Your task to perform on an android device: open chrome and create a bookmark for the current page Image 0: 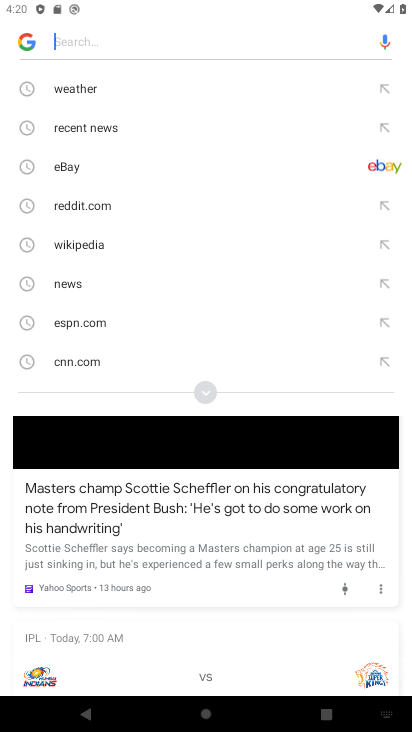
Step 0: click (89, 714)
Your task to perform on an android device: open chrome and create a bookmark for the current page Image 1: 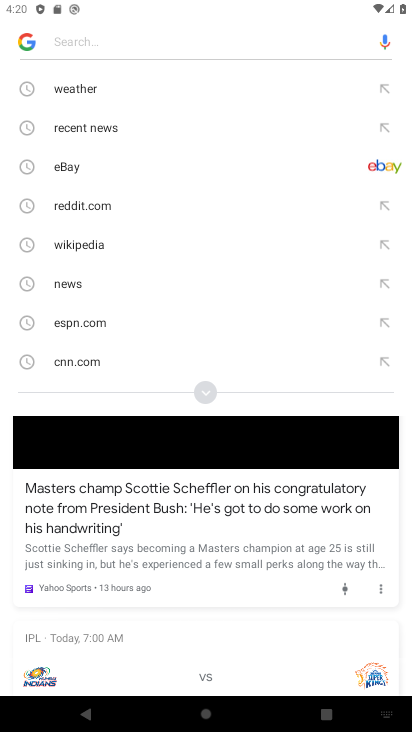
Step 1: click (88, 724)
Your task to perform on an android device: open chrome and create a bookmark for the current page Image 2: 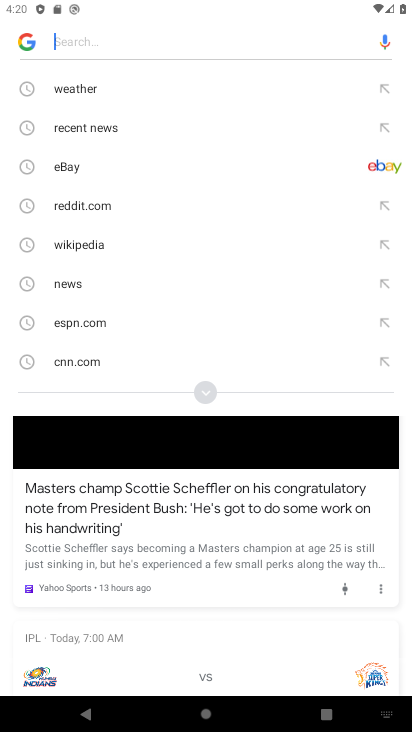
Step 2: click (88, 726)
Your task to perform on an android device: open chrome and create a bookmark for the current page Image 3: 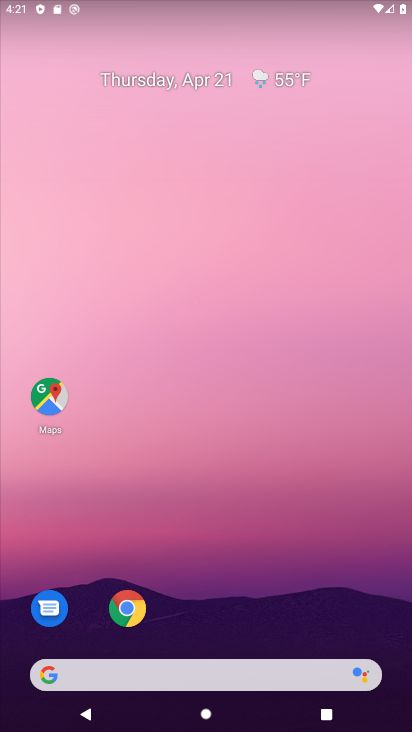
Step 3: drag from (224, 537) to (279, 11)
Your task to perform on an android device: open chrome and create a bookmark for the current page Image 4: 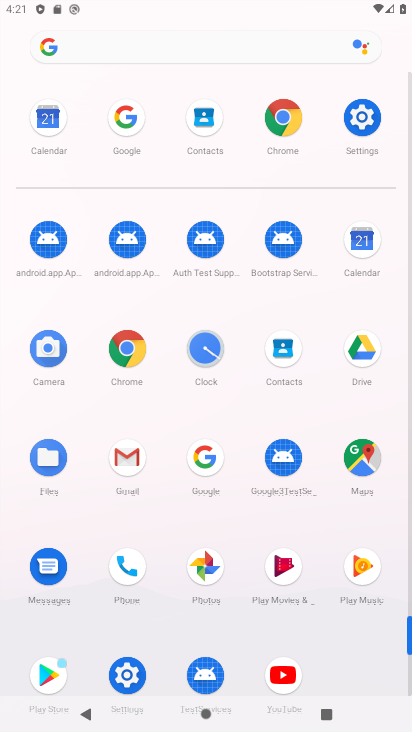
Step 4: click (290, 123)
Your task to perform on an android device: open chrome and create a bookmark for the current page Image 5: 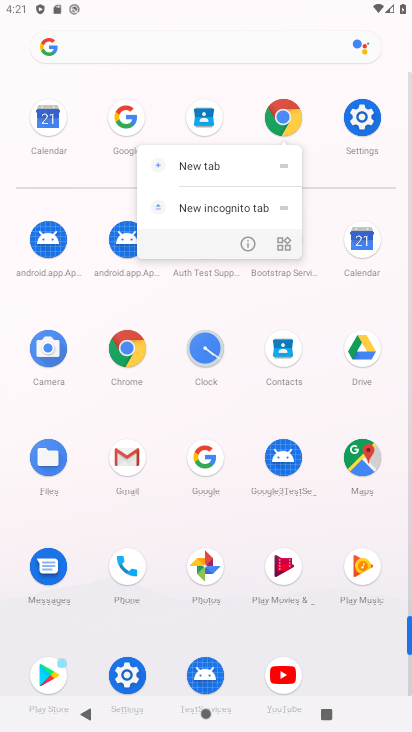
Step 5: click (291, 123)
Your task to perform on an android device: open chrome and create a bookmark for the current page Image 6: 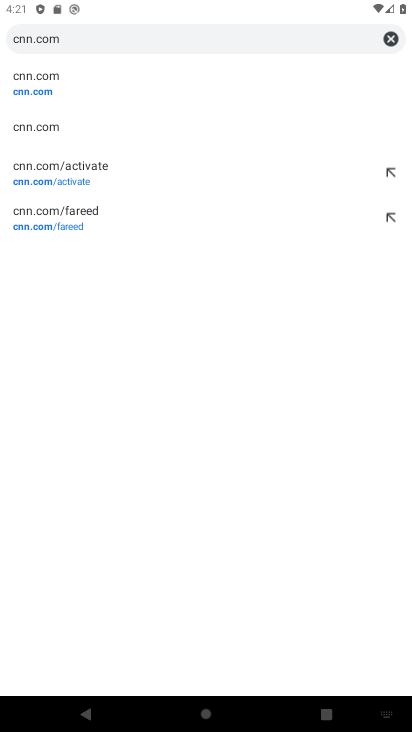
Step 6: click (113, 38)
Your task to perform on an android device: open chrome and create a bookmark for the current page Image 7: 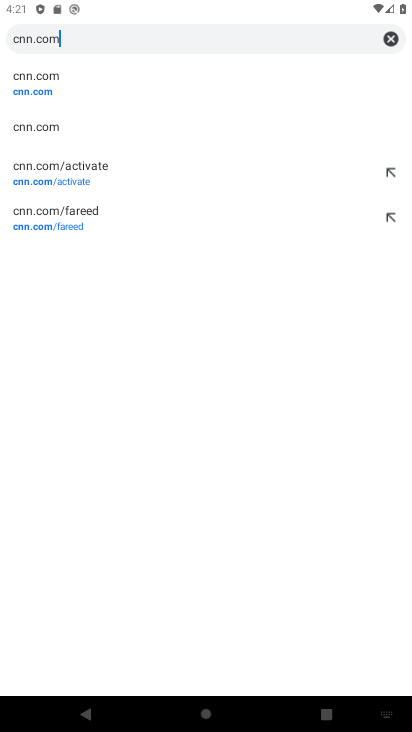
Step 7: click (112, 37)
Your task to perform on an android device: open chrome and create a bookmark for the current page Image 8: 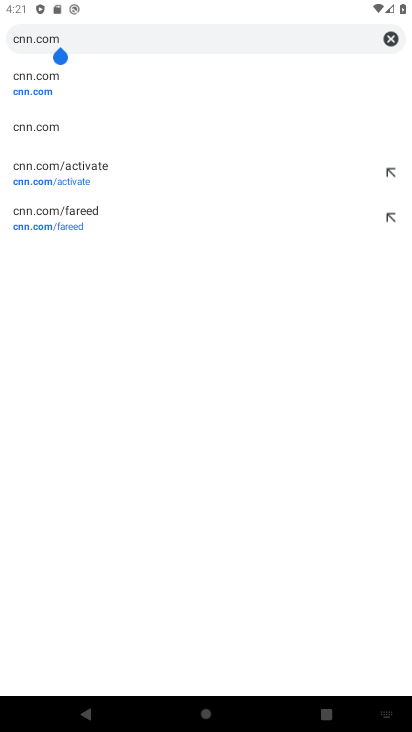
Step 8: click (393, 38)
Your task to perform on an android device: open chrome and create a bookmark for the current page Image 9: 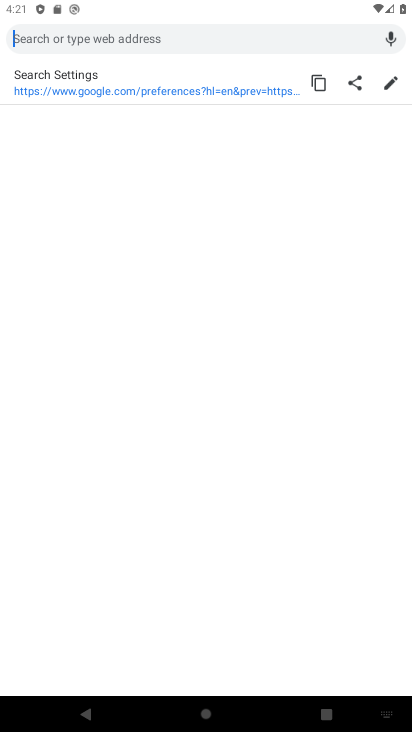
Step 9: click (393, 38)
Your task to perform on an android device: open chrome and create a bookmark for the current page Image 10: 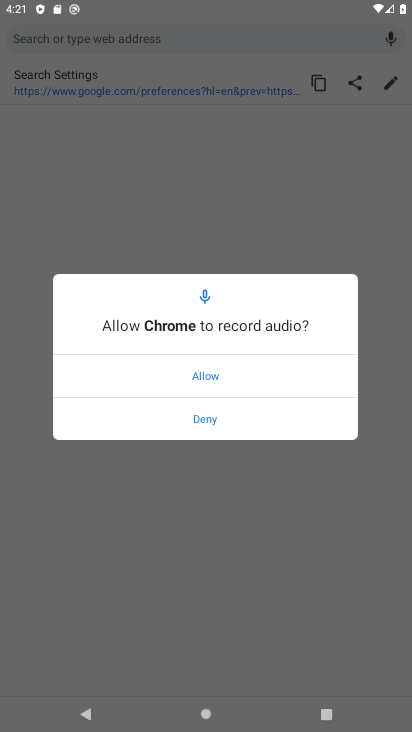
Step 10: click (210, 416)
Your task to perform on an android device: open chrome and create a bookmark for the current page Image 11: 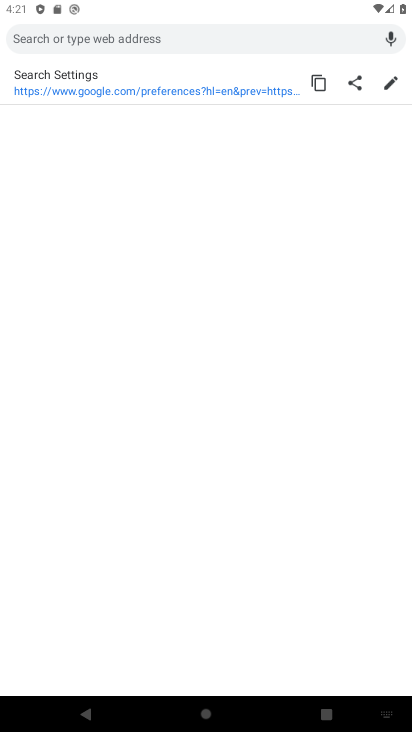
Step 11: click (356, 79)
Your task to perform on an android device: open chrome and create a bookmark for the current page Image 12: 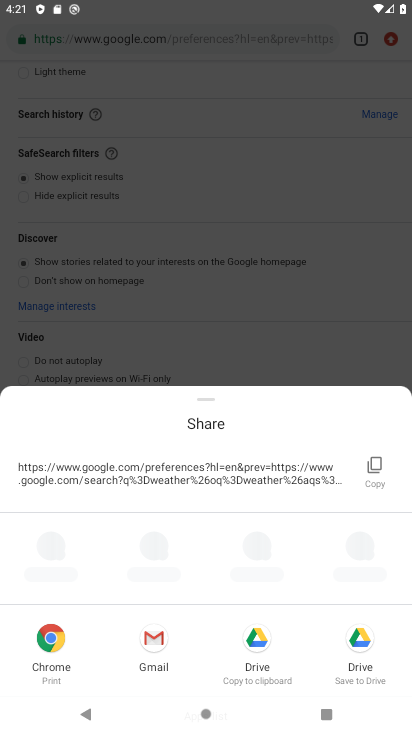
Step 12: click (244, 185)
Your task to perform on an android device: open chrome and create a bookmark for the current page Image 13: 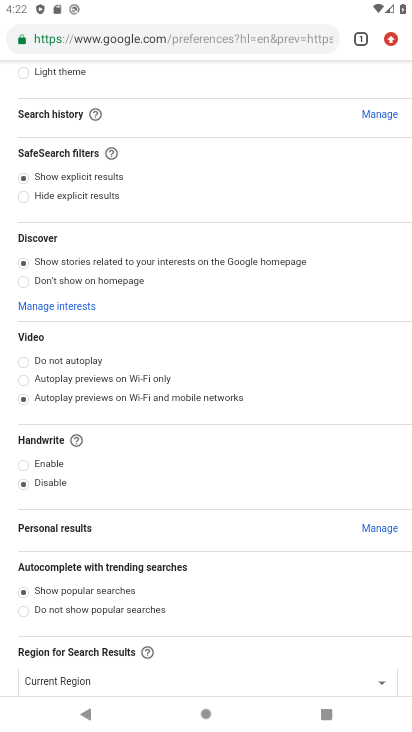
Step 13: click (23, 70)
Your task to perform on an android device: open chrome and create a bookmark for the current page Image 14: 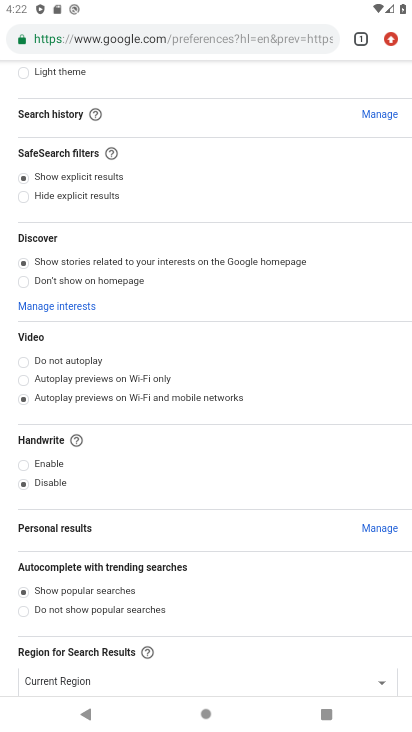
Step 14: click (89, 718)
Your task to perform on an android device: open chrome and create a bookmark for the current page Image 15: 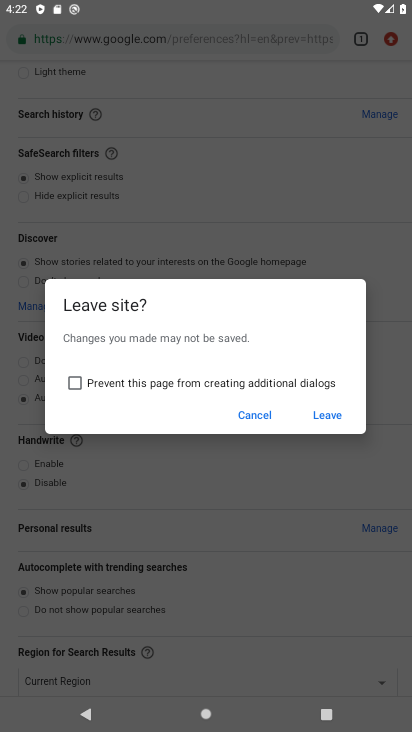
Step 15: click (70, 383)
Your task to perform on an android device: open chrome and create a bookmark for the current page Image 16: 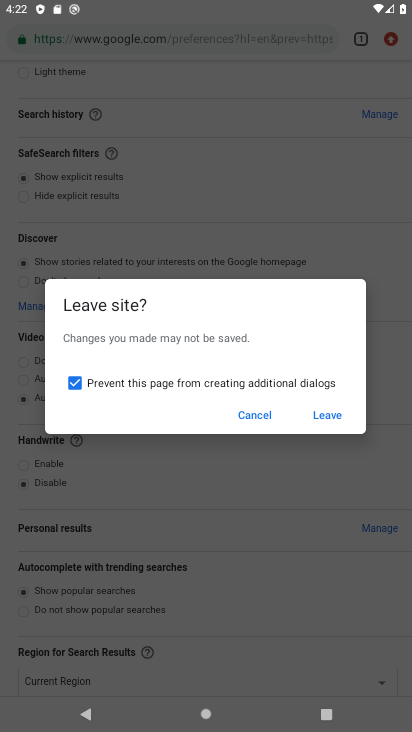
Step 16: click (336, 414)
Your task to perform on an android device: open chrome and create a bookmark for the current page Image 17: 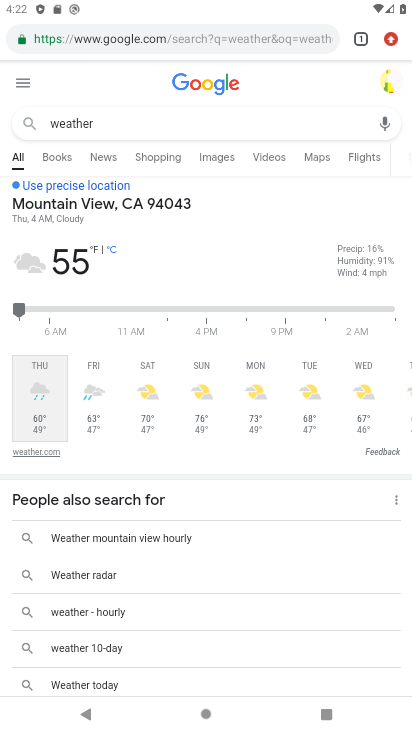
Step 17: click (20, 90)
Your task to perform on an android device: open chrome and create a bookmark for the current page Image 18: 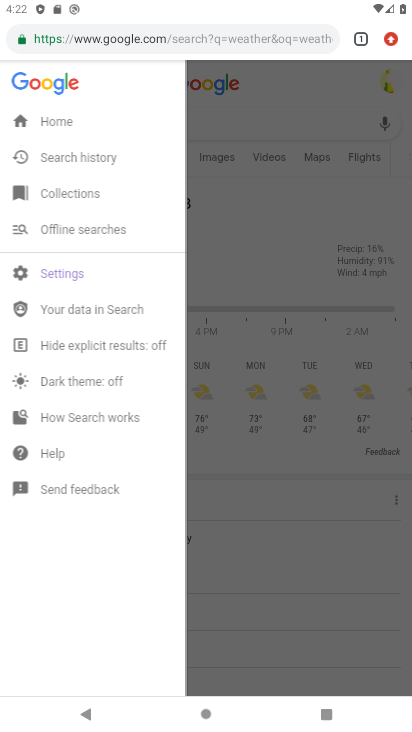
Step 18: click (82, 273)
Your task to perform on an android device: open chrome and create a bookmark for the current page Image 19: 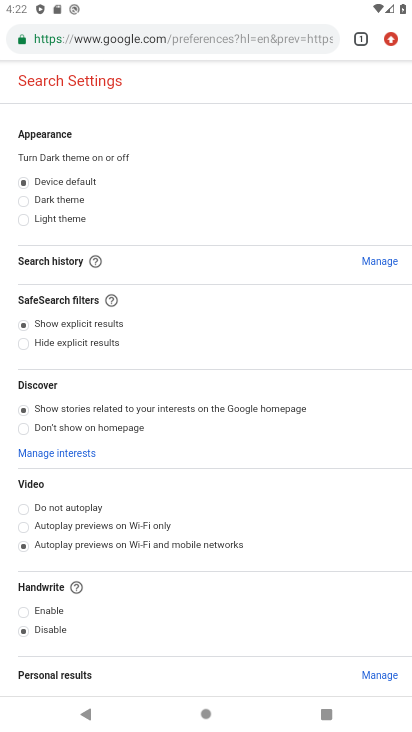
Step 19: drag from (203, 550) to (255, 226)
Your task to perform on an android device: open chrome and create a bookmark for the current page Image 20: 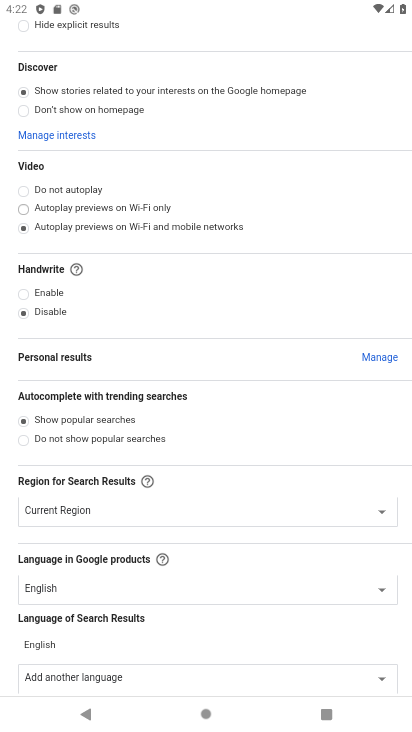
Step 20: drag from (253, 121) to (195, 431)
Your task to perform on an android device: open chrome and create a bookmark for the current page Image 21: 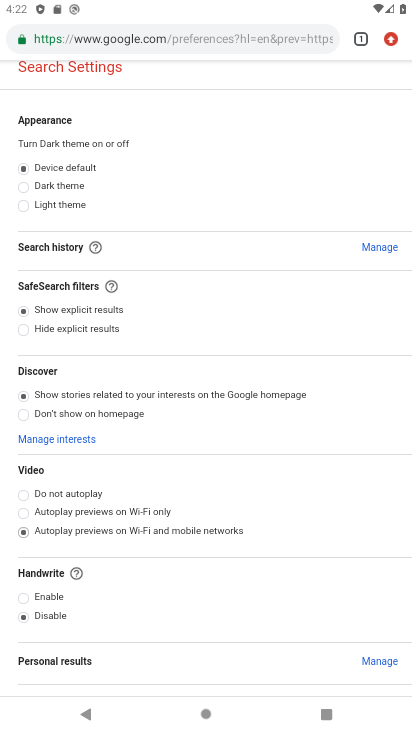
Step 21: drag from (184, 143) to (148, 404)
Your task to perform on an android device: open chrome and create a bookmark for the current page Image 22: 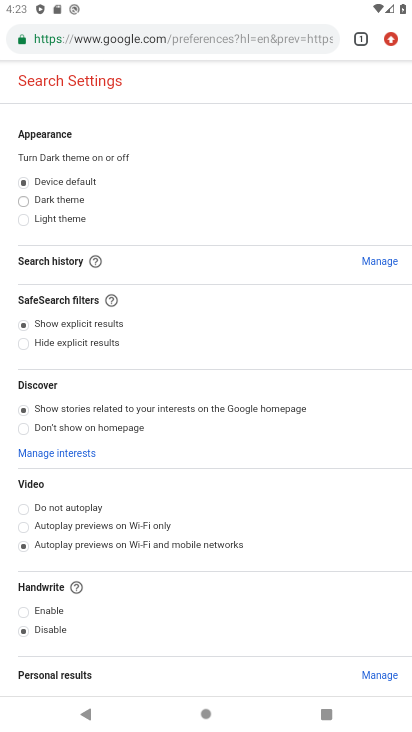
Step 22: click (33, 80)
Your task to perform on an android device: open chrome and create a bookmark for the current page Image 23: 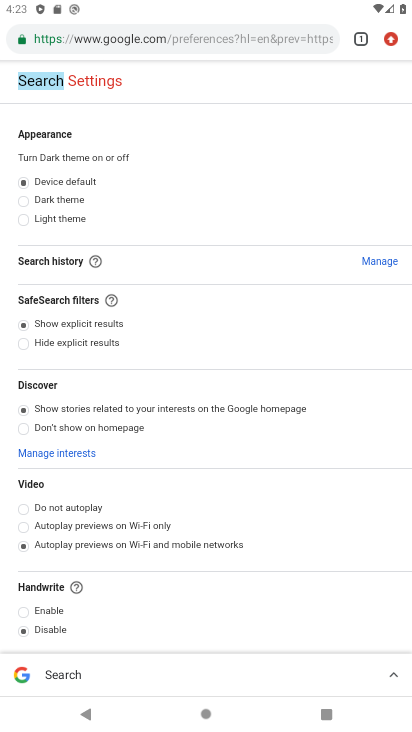
Step 23: click (139, 87)
Your task to perform on an android device: open chrome and create a bookmark for the current page Image 24: 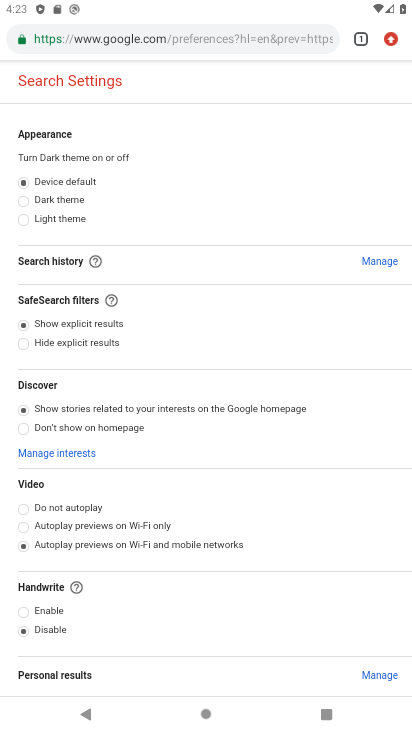
Step 24: click (177, 216)
Your task to perform on an android device: open chrome and create a bookmark for the current page Image 25: 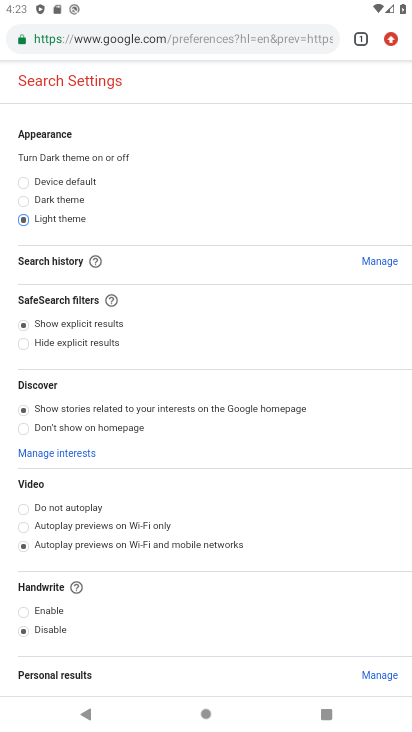
Step 25: drag from (196, 532) to (293, 106)
Your task to perform on an android device: open chrome and create a bookmark for the current page Image 26: 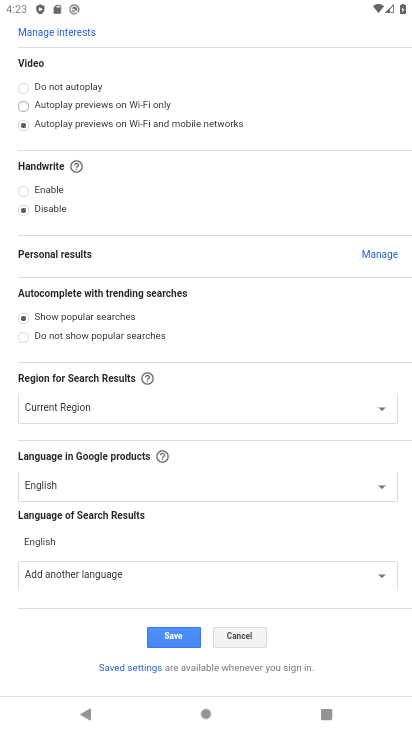
Step 26: drag from (209, 97) to (195, 400)
Your task to perform on an android device: open chrome and create a bookmark for the current page Image 27: 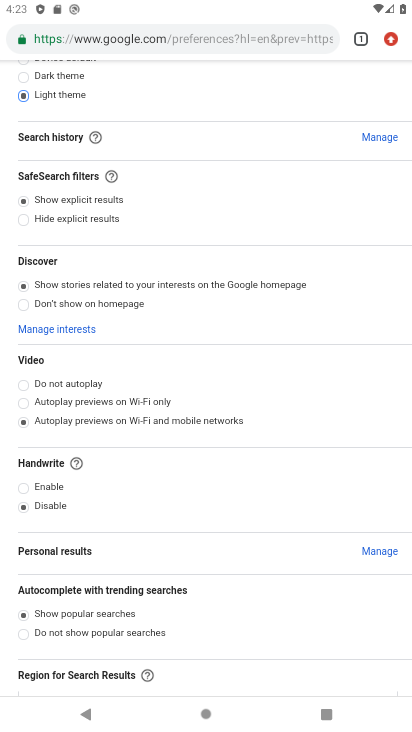
Step 27: click (88, 718)
Your task to perform on an android device: open chrome and create a bookmark for the current page Image 28: 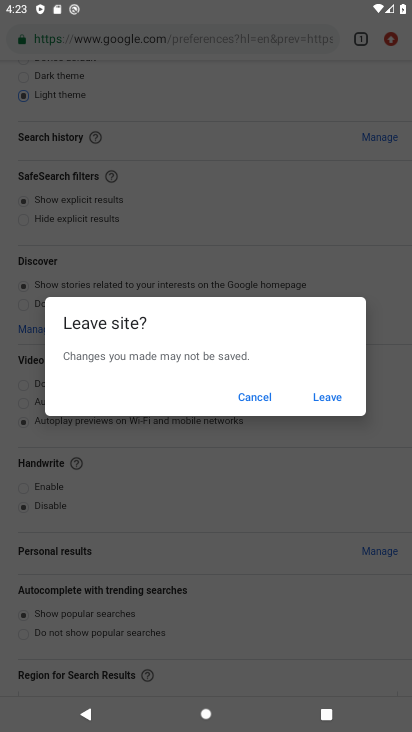
Step 28: click (328, 405)
Your task to perform on an android device: open chrome and create a bookmark for the current page Image 29: 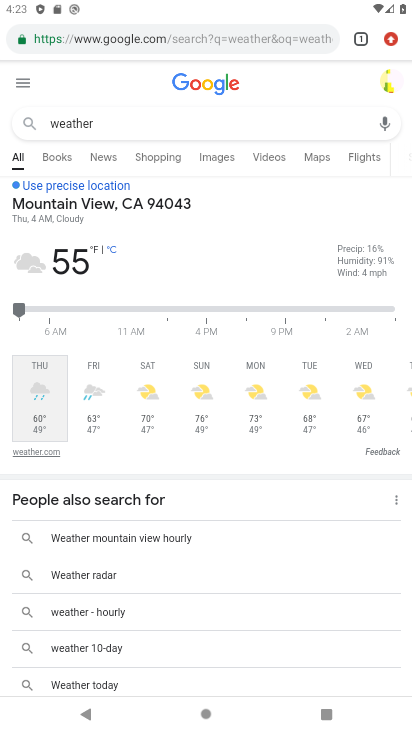
Step 29: click (29, 90)
Your task to perform on an android device: open chrome and create a bookmark for the current page Image 30: 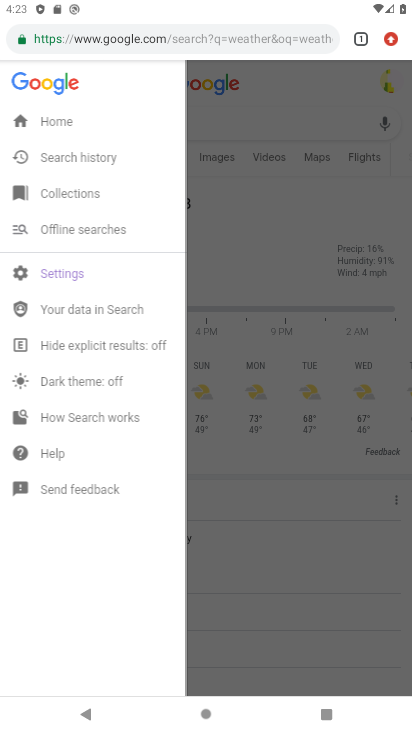
Step 30: click (199, 192)
Your task to perform on an android device: open chrome and create a bookmark for the current page Image 31: 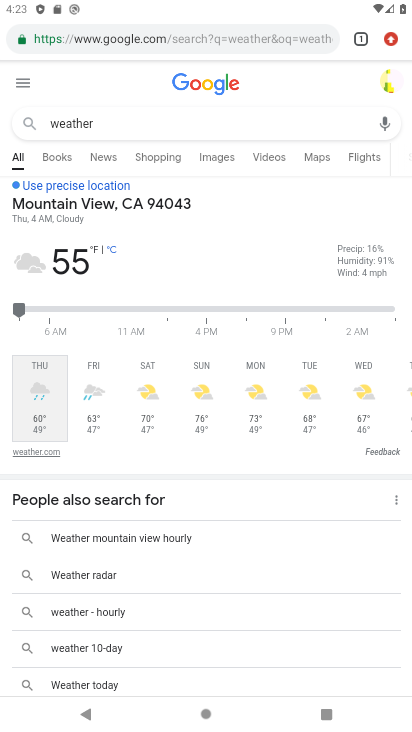
Step 31: click (17, 82)
Your task to perform on an android device: open chrome and create a bookmark for the current page Image 32: 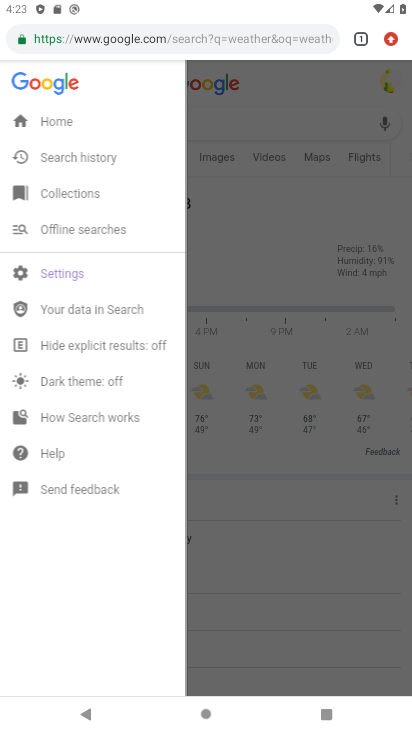
Step 32: click (276, 104)
Your task to perform on an android device: open chrome and create a bookmark for the current page Image 33: 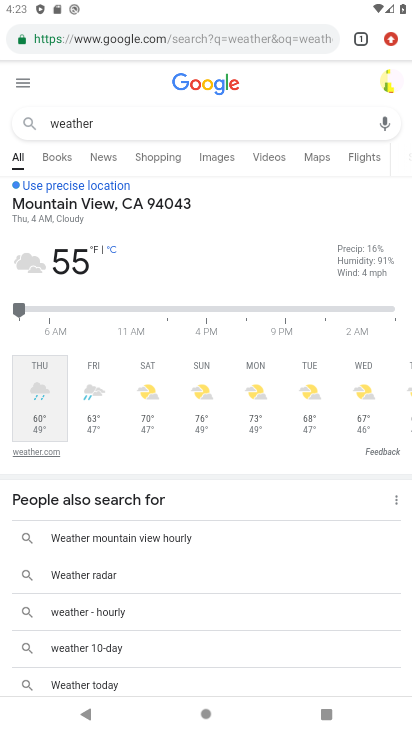
Step 33: click (398, 503)
Your task to perform on an android device: open chrome and create a bookmark for the current page Image 34: 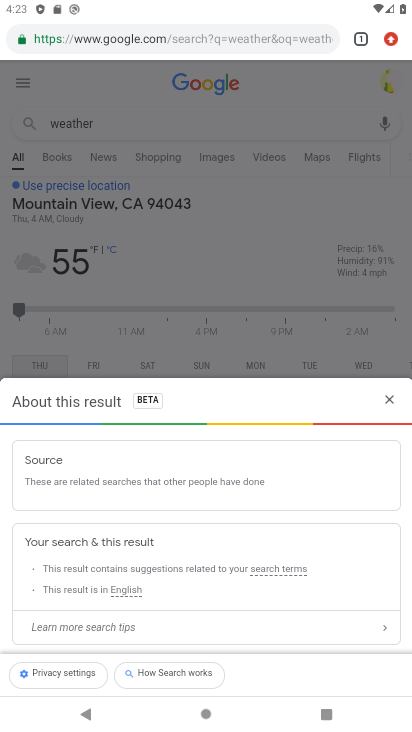
Step 34: drag from (244, 568) to (254, 422)
Your task to perform on an android device: open chrome and create a bookmark for the current page Image 35: 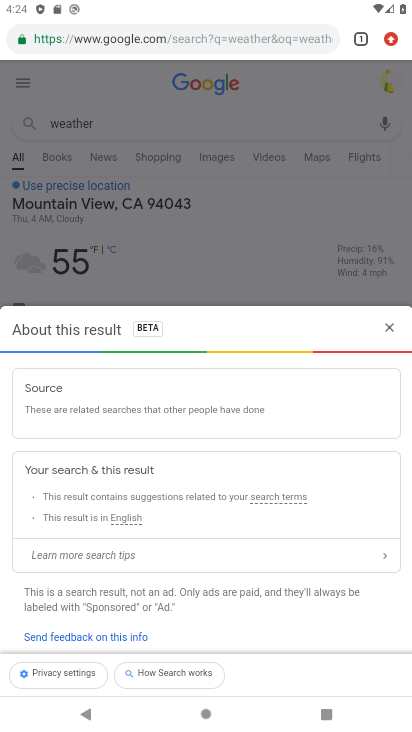
Step 35: click (386, 319)
Your task to perform on an android device: open chrome and create a bookmark for the current page Image 36: 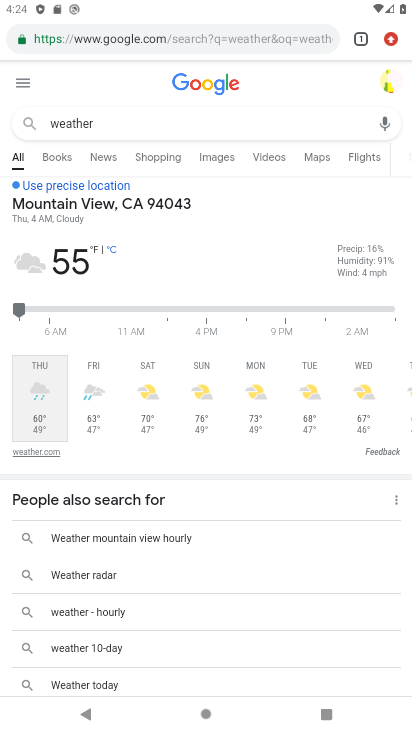
Step 36: click (24, 83)
Your task to perform on an android device: open chrome and create a bookmark for the current page Image 37: 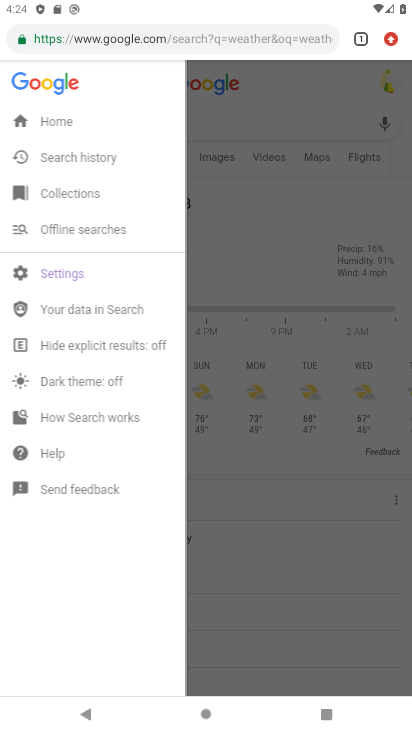
Step 37: click (241, 248)
Your task to perform on an android device: open chrome and create a bookmark for the current page Image 38: 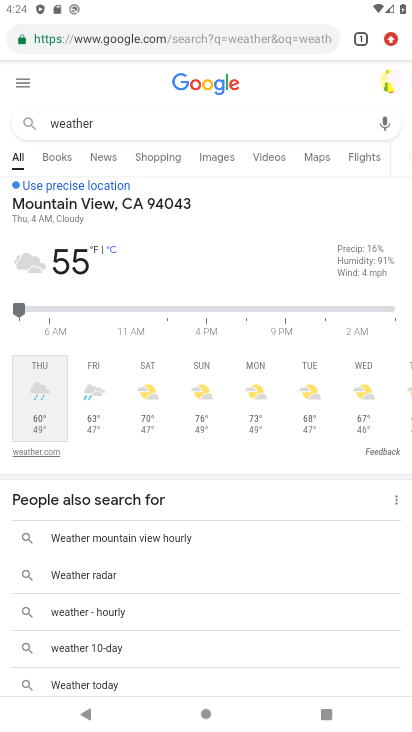
Step 38: task complete